Your task to perform on an android device: What's the weather? Image 0: 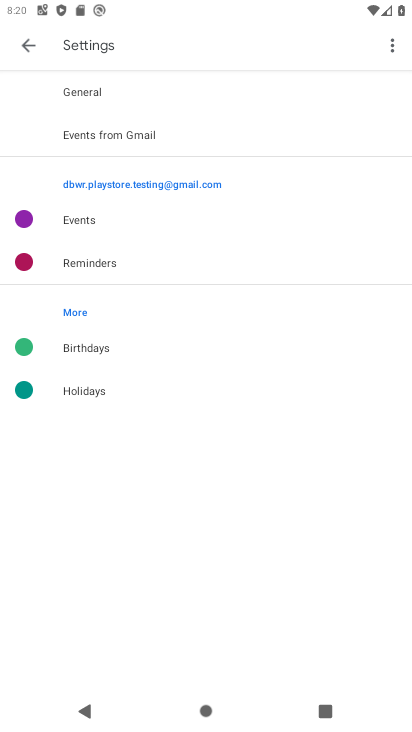
Step 0: press home button
Your task to perform on an android device: What's the weather? Image 1: 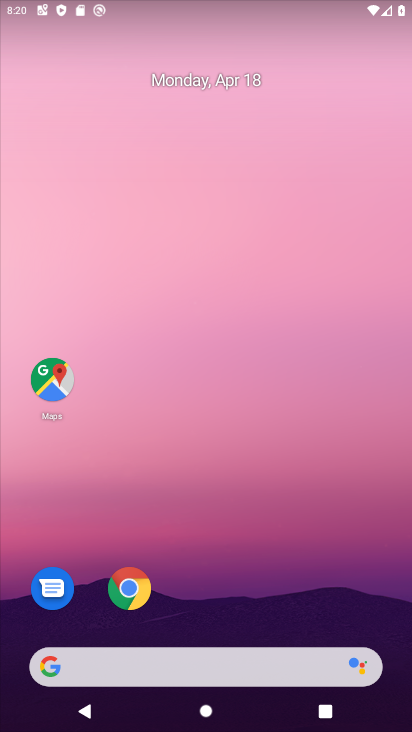
Step 1: click (145, 591)
Your task to perform on an android device: What's the weather? Image 2: 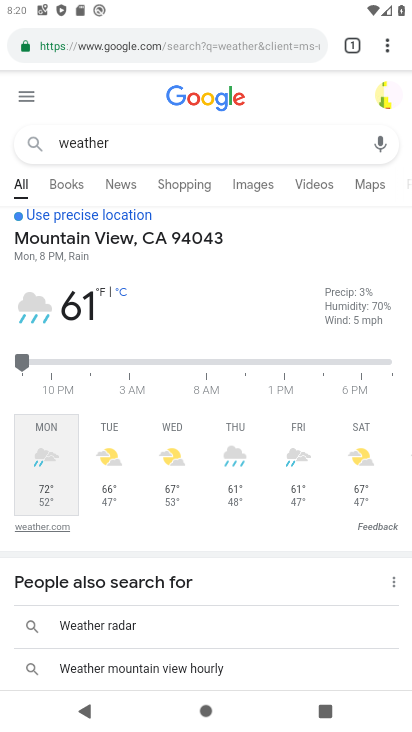
Step 2: task complete